Your task to perform on an android device: Turn off the flashlight Image 0: 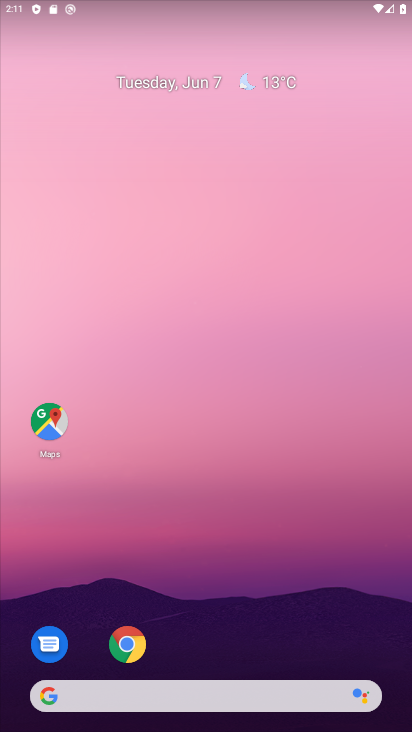
Step 0: press home button
Your task to perform on an android device: Turn off the flashlight Image 1: 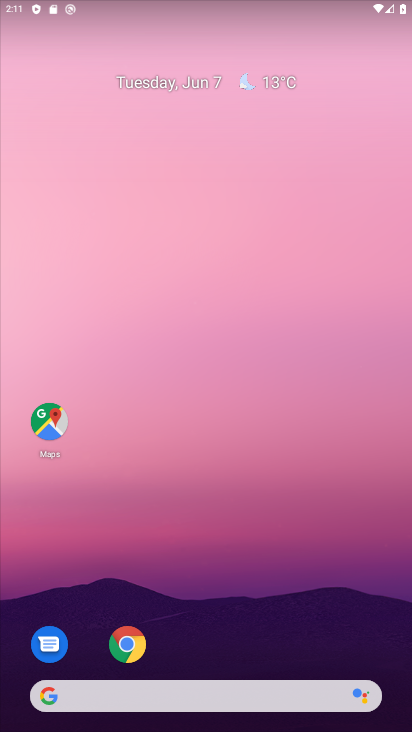
Step 1: drag from (215, 636) to (247, 76)
Your task to perform on an android device: Turn off the flashlight Image 2: 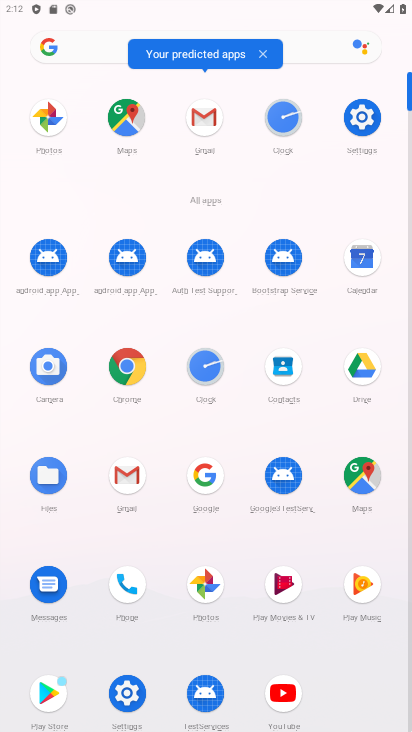
Step 2: click (361, 113)
Your task to perform on an android device: Turn off the flashlight Image 3: 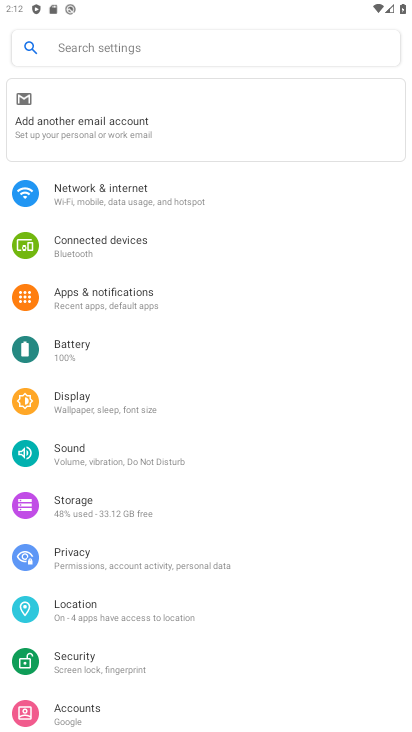
Step 3: click (113, 47)
Your task to perform on an android device: Turn off the flashlight Image 4: 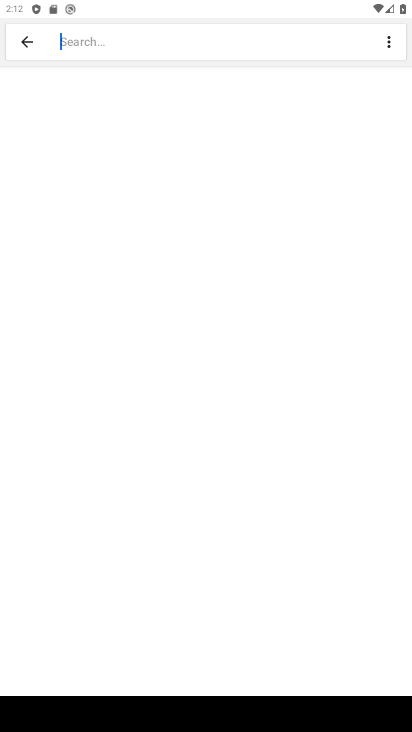
Step 4: type "flashlight"
Your task to perform on an android device: Turn off the flashlight Image 5: 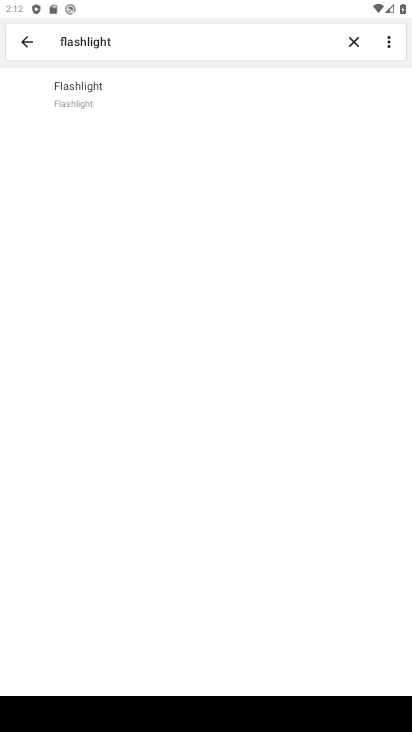
Step 5: click (108, 90)
Your task to perform on an android device: Turn off the flashlight Image 6: 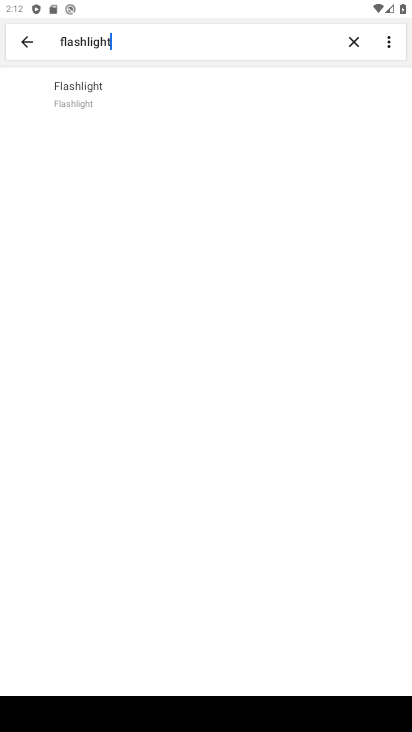
Step 6: click (102, 93)
Your task to perform on an android device: Turn off the flashlight Image 7: 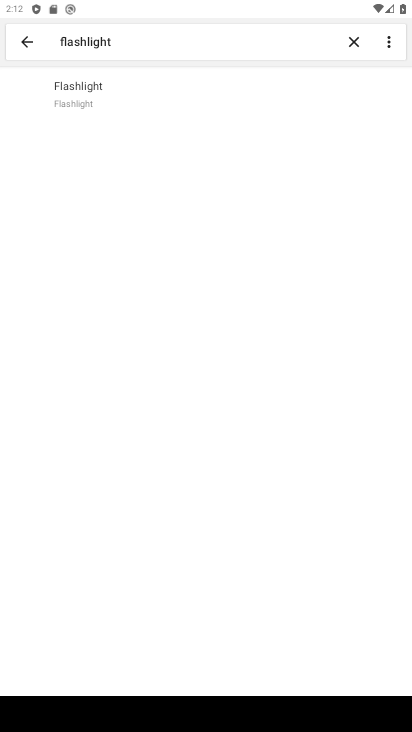
Step 7: task complete